Your task to perform on an android device: When is my next appointment? Image 0: 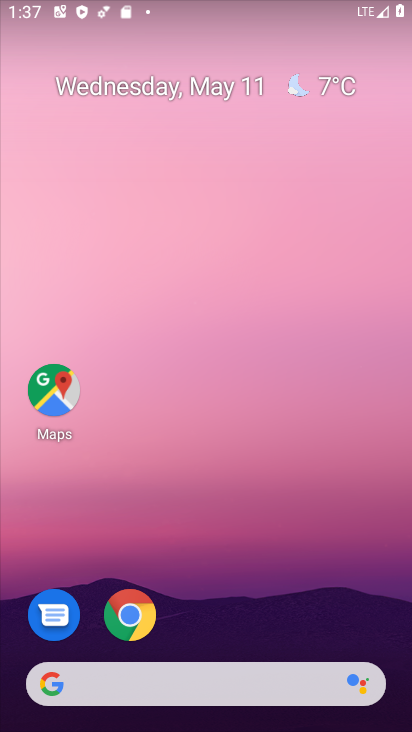
Step 0: drag from (285, 594) to (333, 118)
Your task to perform on an android device: When is my next appointment? Image 1: 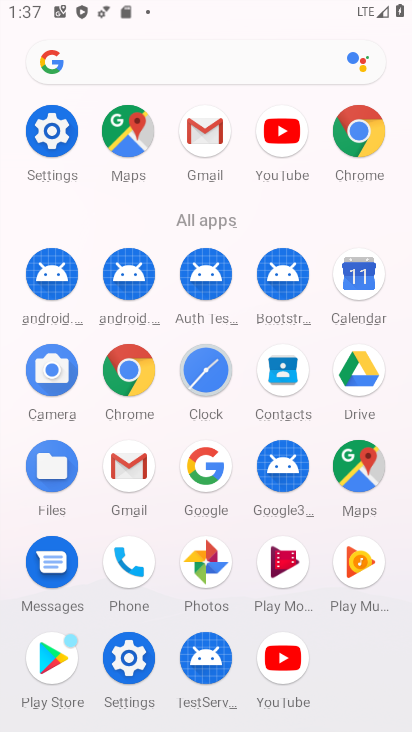
Step 1: click (280, 369)
Your task to perform on an android device: When is my next appointment? Image 2: 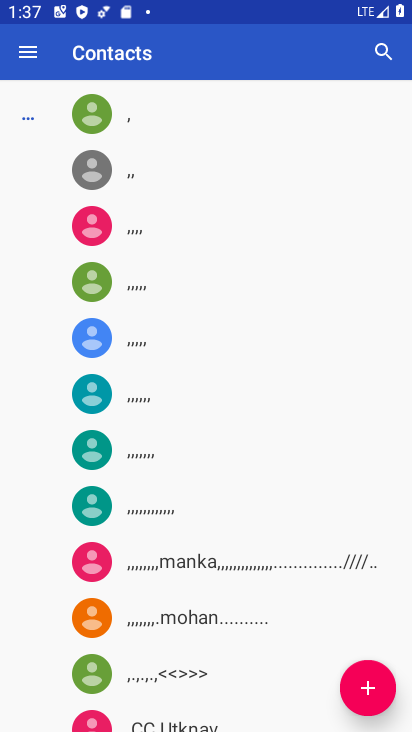
Step 2: press home button
Your task to perform on an android device: When is my next appointment? Image 3: 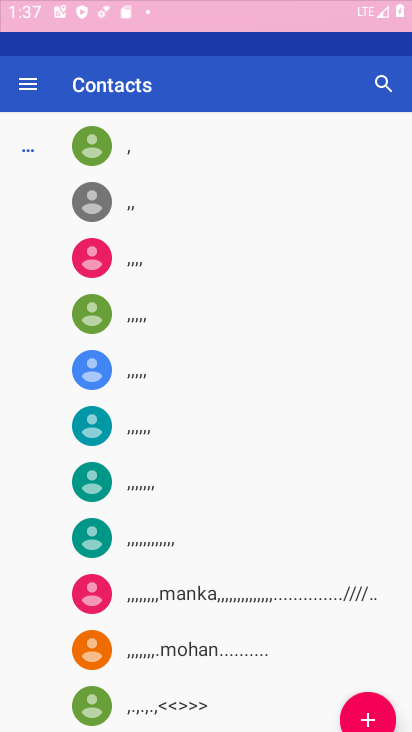
Step 3: press home button
Your task to perform on an android device: When is my next appointment? Image 4: 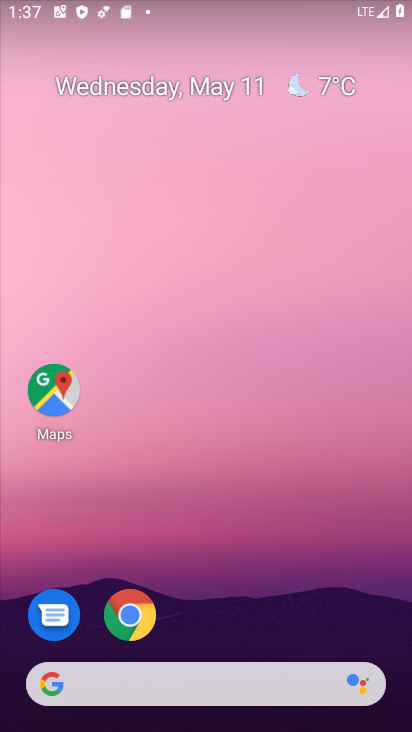
Step 4: drag from (316, 605) to (407, 146)
Your task to perform on an android device: When is my next appointment? Image 5: 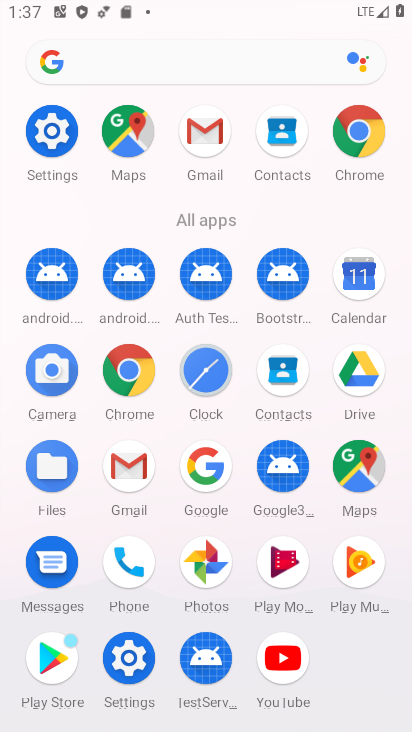
Step 5: click (375, 275)
Your task to perform on an android device: When is my next appointment? Image 6: 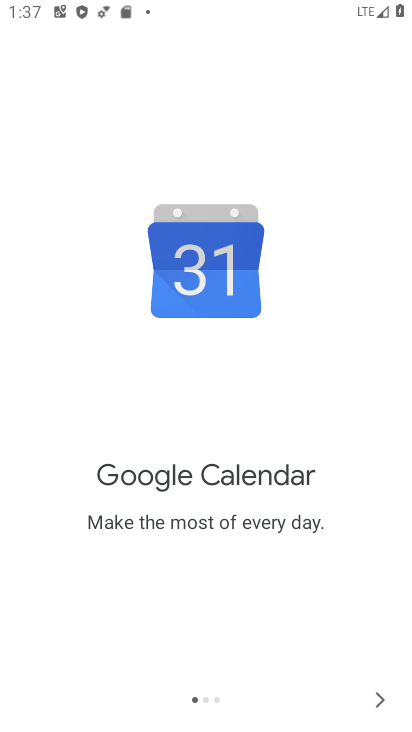
Step 6: click (369, 699)
Your task to perform on an android device: When is my next appointment? Image 7: 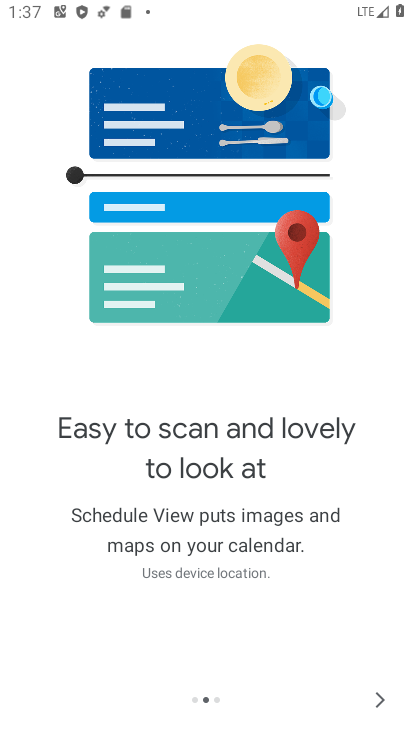
Step 7: click (371, 696)
Your task to perform on an android device: When is my next appointment? Image 8: 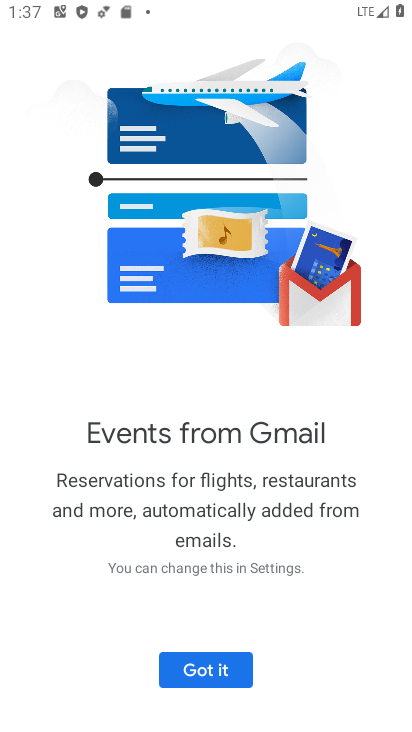
Step 8: click (206, 681)
Your task to perform on an android device: When is my next appointment? Image 9: 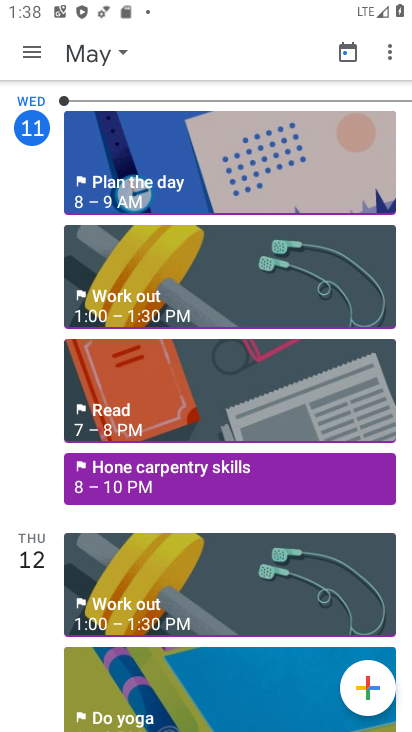
Step 9: task complete